Your task to perform on an android device: Do I have any events this weekend? Image 0: 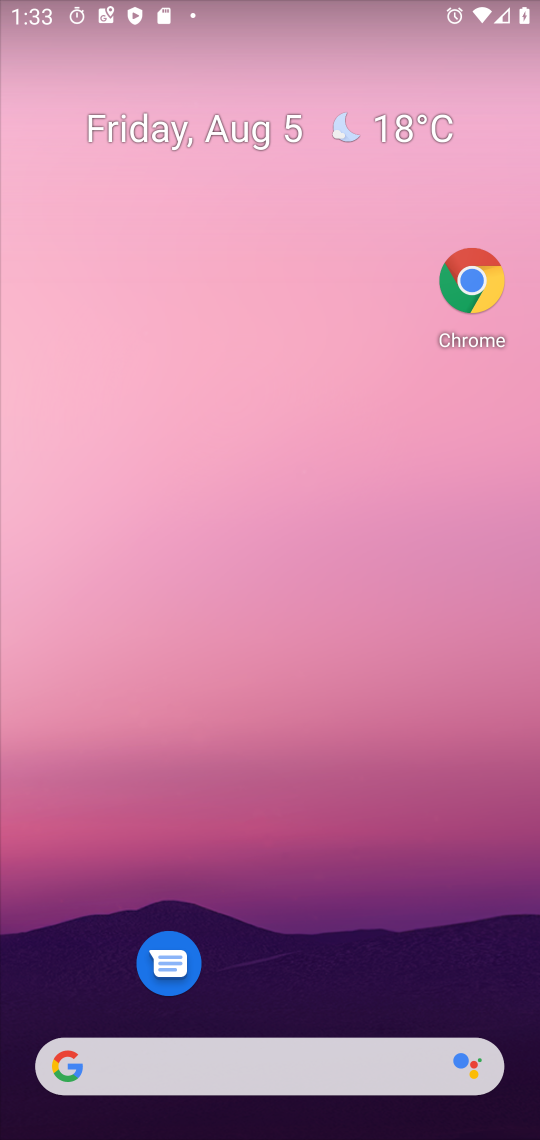
Step 0: drag from (257, 857) to (533, 429)
Your task to perform on an android device: Do I have any events this weekend? Image 1: 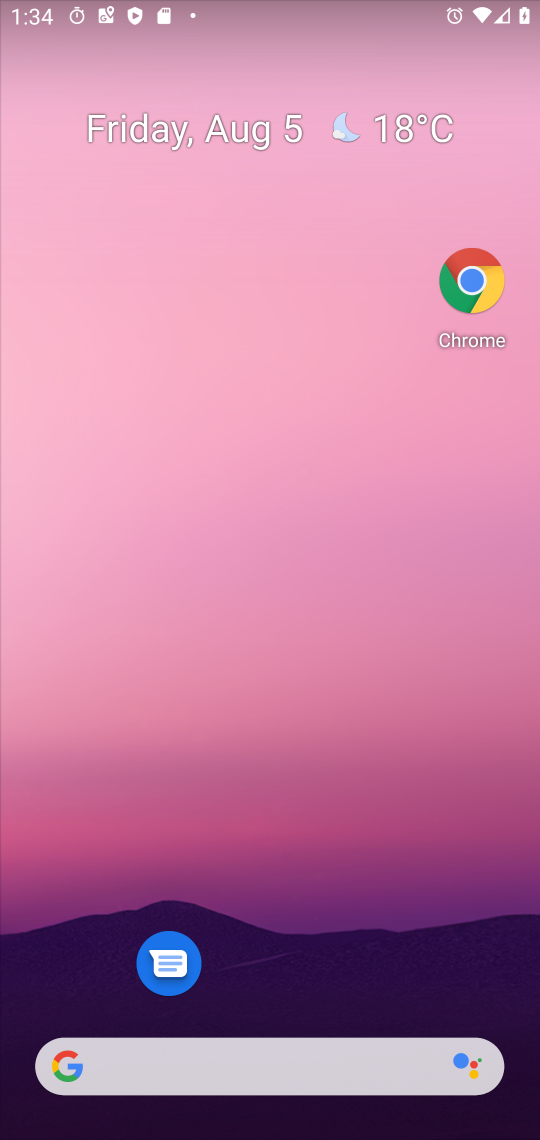
Step 1: drag from (312, 762) to (312, 16)
Your task to perform on an android device: Do I have any events this weekend? Image 2: 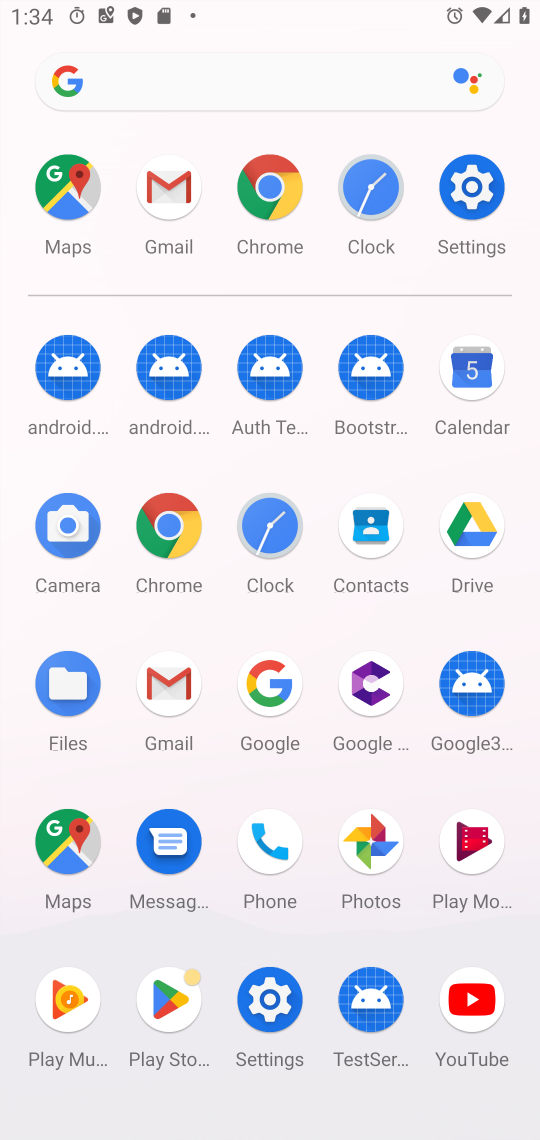
Step 2: click (472, 367)
Your task to perform on an android device: Do I have any events this weekend? Image 3: 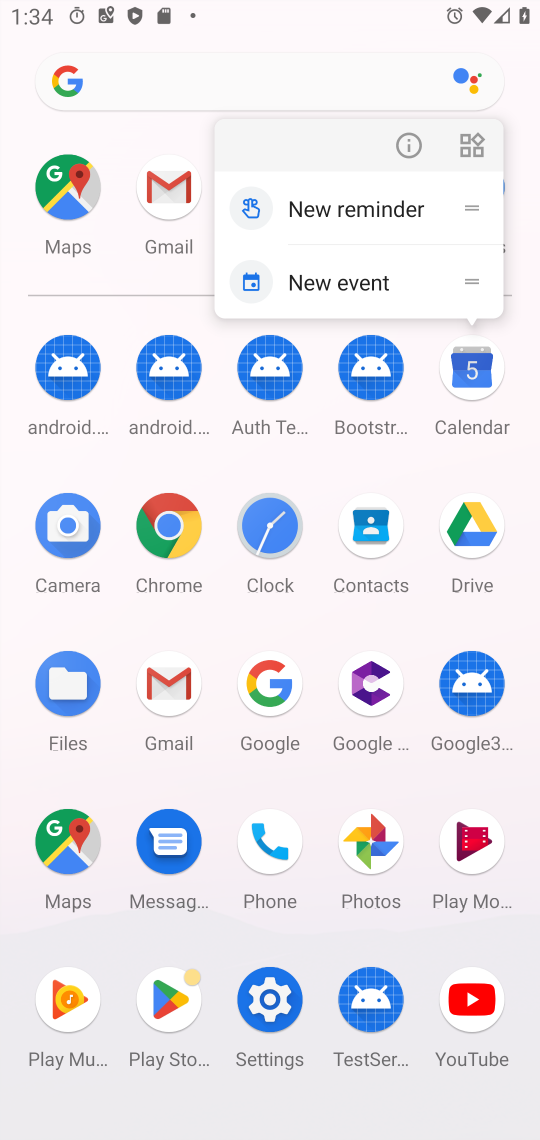
Step 3: click (472, 363)
Your task to perform on an android device: Do I have any events this weekend? Image 4: 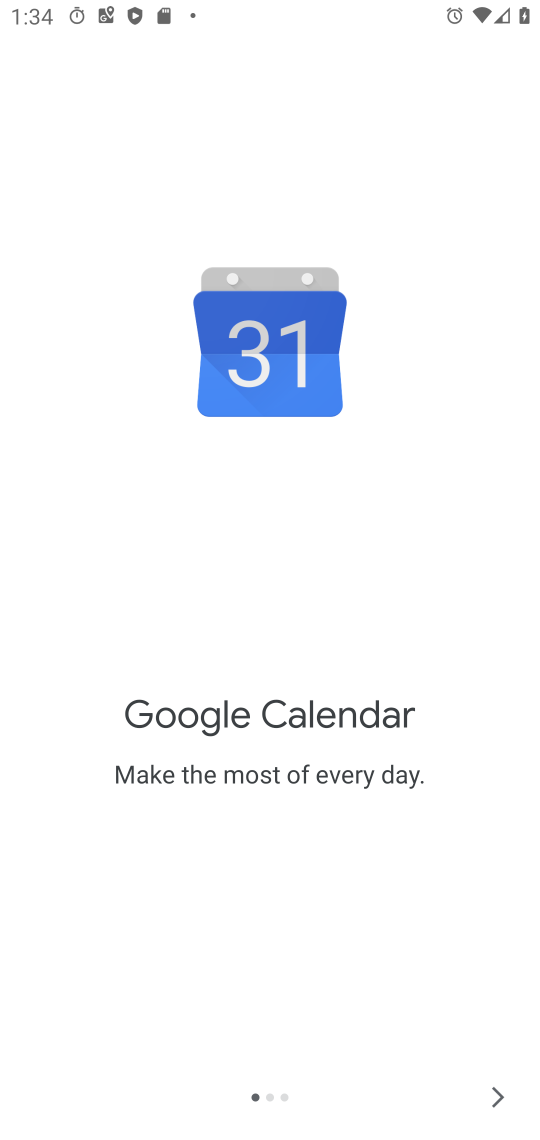
Step 4: click (491, 1092)
Your task to perform on an android device: Do I have any events this weekend? Image 5: 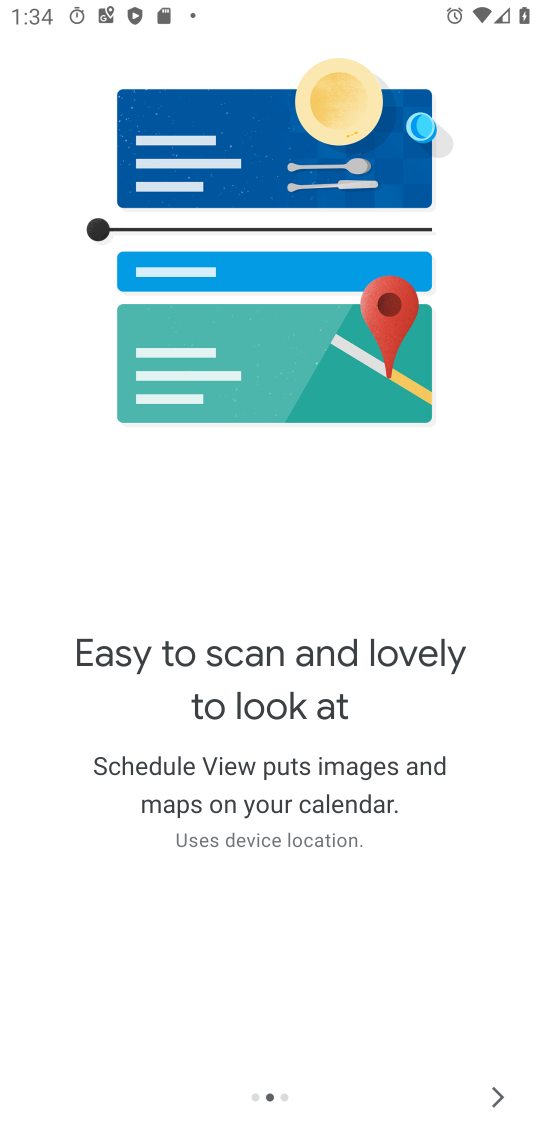
Step 5: click (496, 1114)
Your task to perform on an android device: Do I have any events this weekend? Image 6: 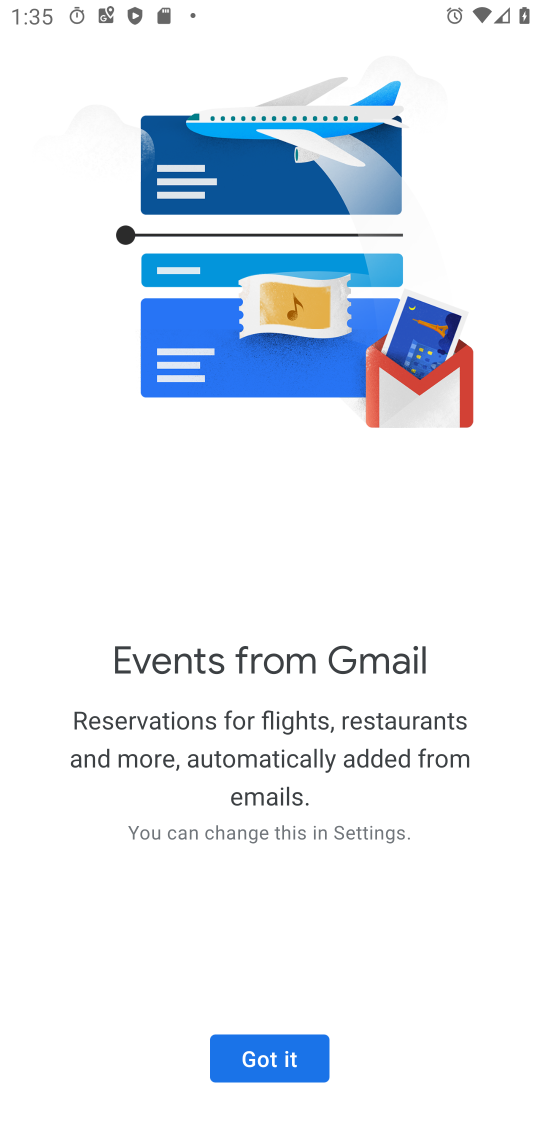
Step 6: click (291, 1065)
Your task to perform on an android device: Do I have any events this weekend? Image 7: 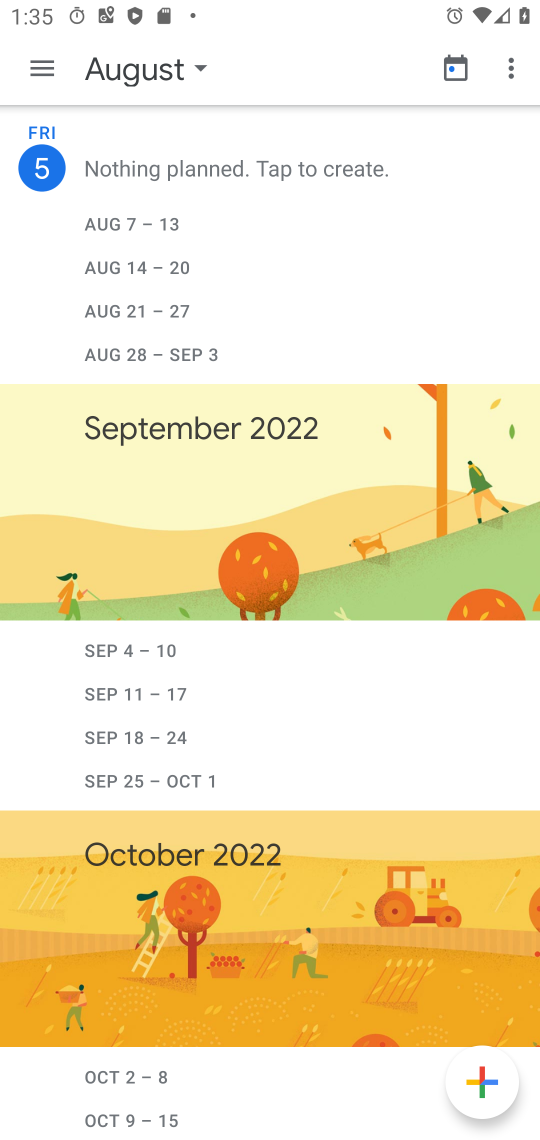
Step 7: click (148, 50)
Your task to perform on an android device: Do I have any events this weekend? Image 8: 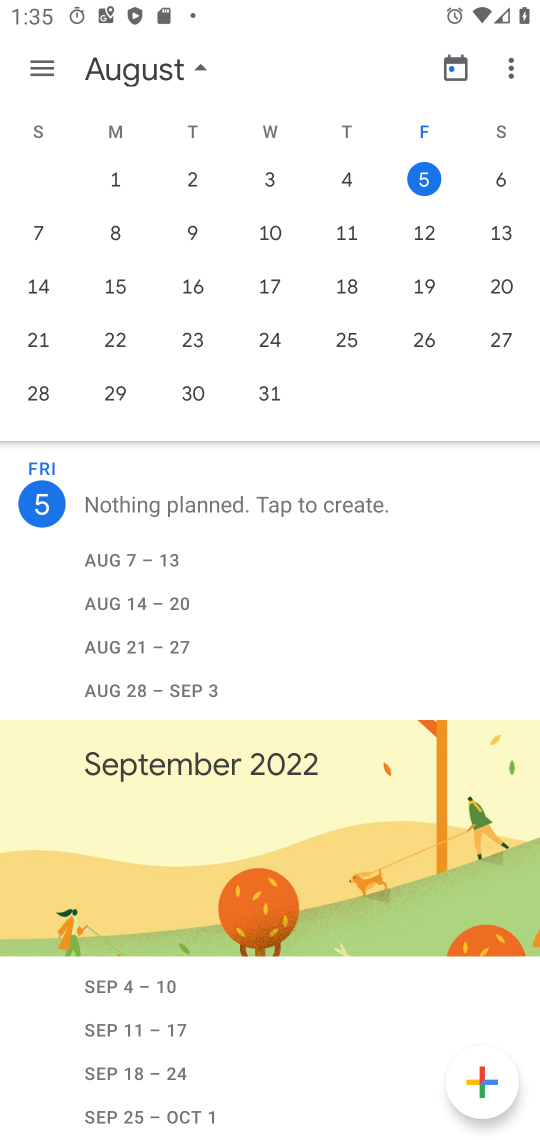
Step 8: task complete